Your task to perform on an android device: delete browsing data in the chrome app Image 0: 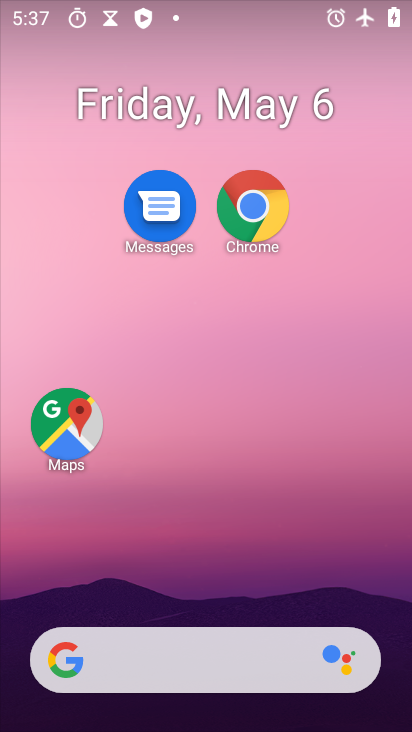
Step 0: click (259, 209)
Your task to perform on an android device: delete browsing data in the chrome app Image 1: 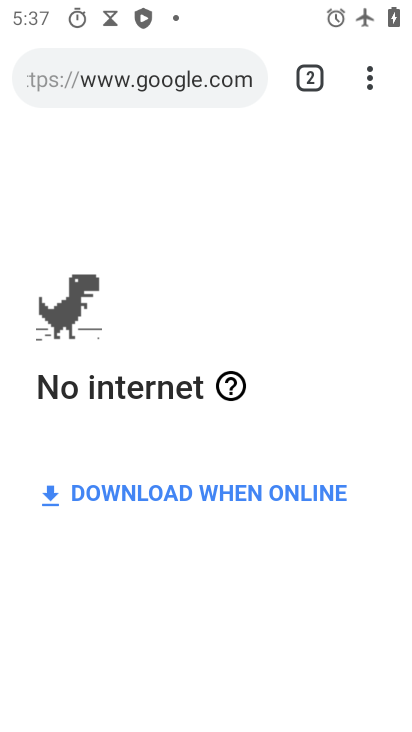
Step 1: click (364, 77)
Your task to perform on an android device: delete browsing data in the chrome app Image 2: 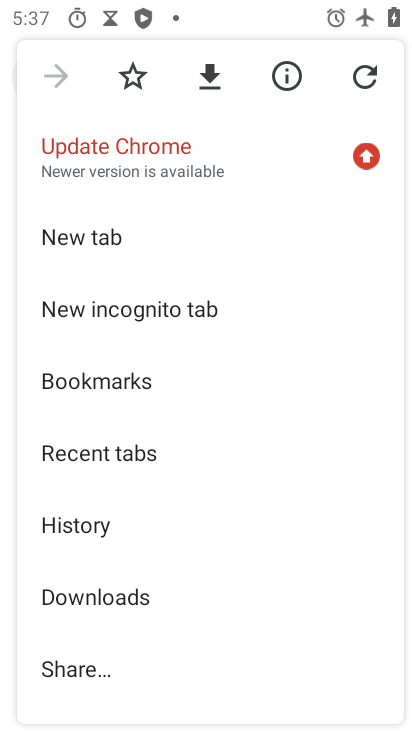
Step 2: click (90, 527)
Your task to perform on an android device: delete browsing data in the chrome app Image 3: 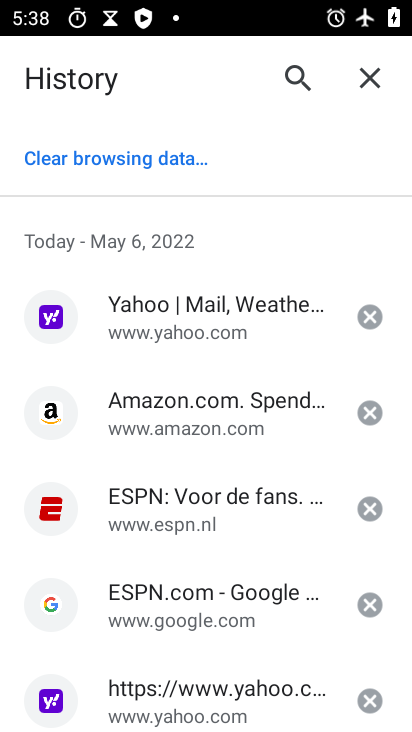
Step 3: click (125, 158)
Your task to perform on an android device: delete browsing data in the chrome app Image 4: 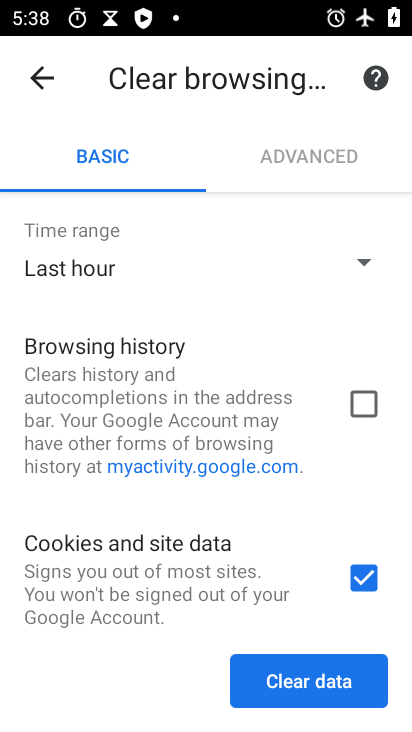
Step 4: click (365, 408)
Your task to perform on an android device: delete browsing data in the chrome app Image 5: 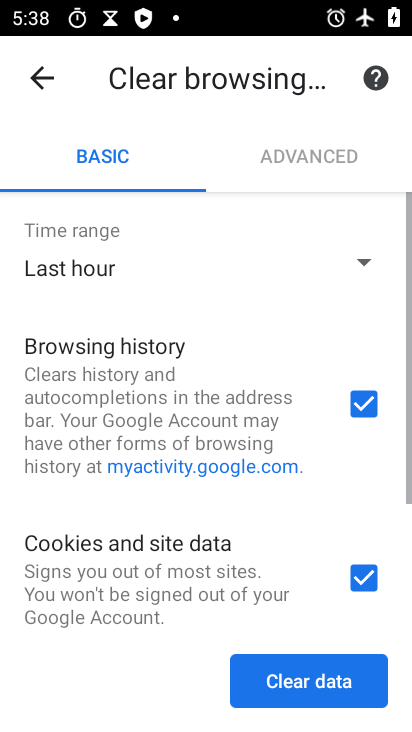
Step 5: drag from (147, 677) to (143, 382)
Your task to perform on an android device: delete browsing data in the chrome app Image 6: 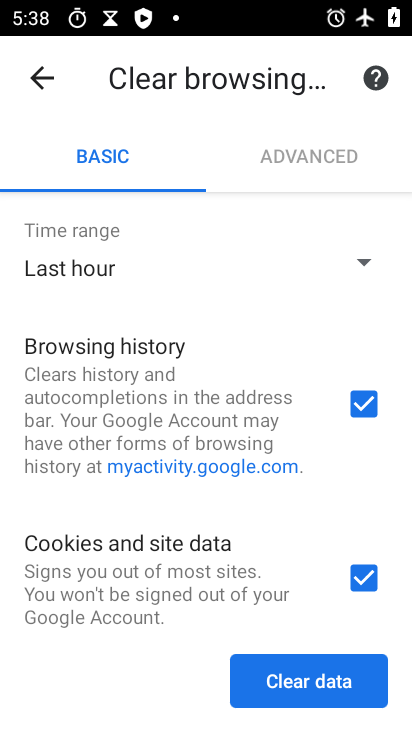
Step 6: drag from (253, 602) to (258, 262)
Your task to perform on an android device: delete browsing data in the chrome app Image 7: 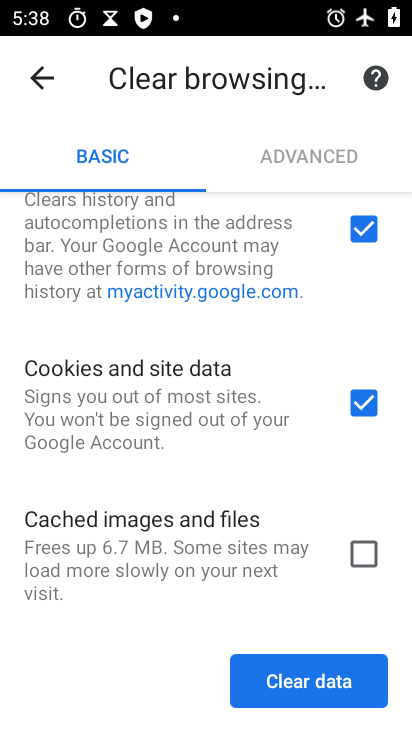
Step 7: click (373, 548)
Your task to perform on an android device: delete browsing data in the chrome app Image 8: 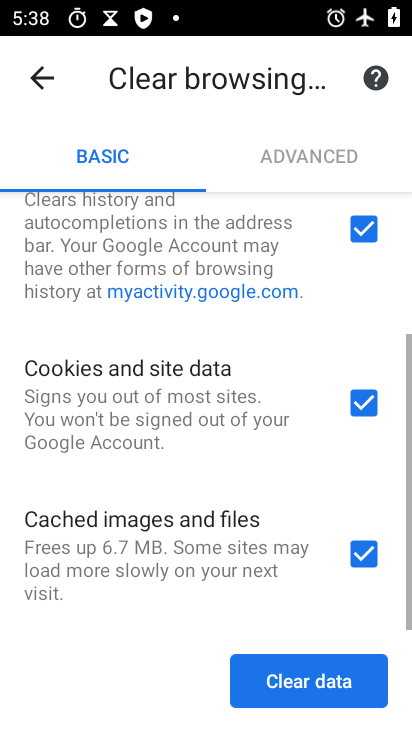
Step 8: click (324, 674)
Your task to perform on an android device: delete browsing data in the chrome app Image 9: 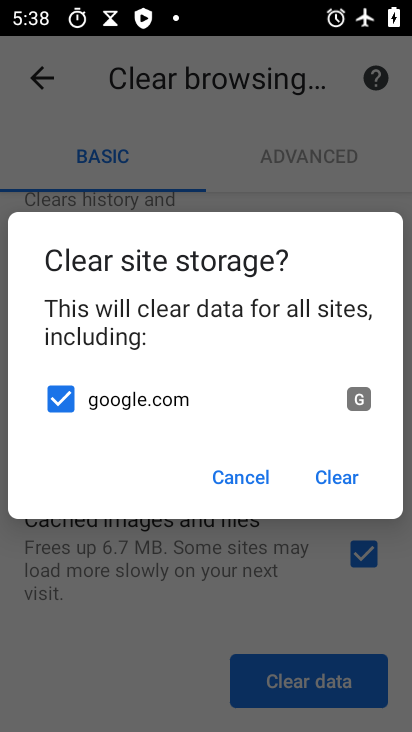
Step 9: click (355, 475)
Your task to perform on an android device: delete browsing data in the chrome app Image 10: 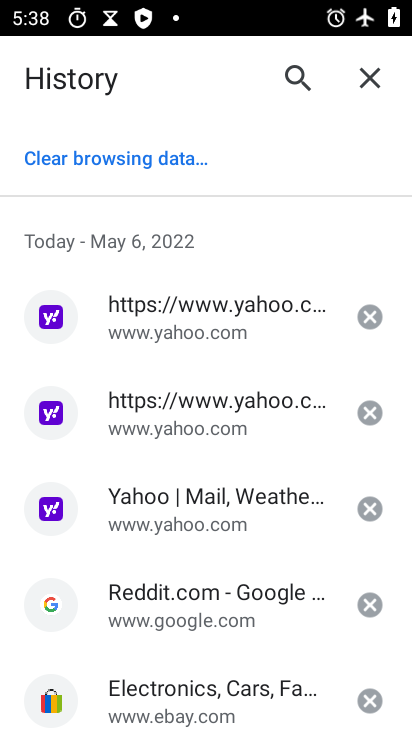
Step 10: task complete